Your task to perform on an android device: turn pop-ups on in chrome Image 0: 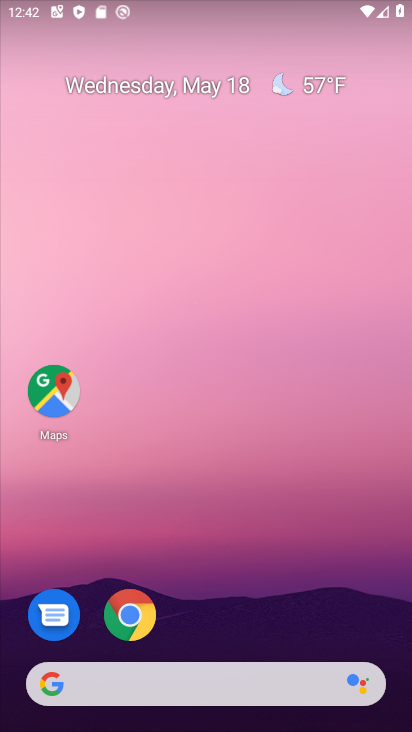
Step 0: drag from (282, 624) to (162, 6)
Your task to perform on an android device: turn pop-ups on in chrome Image 1: 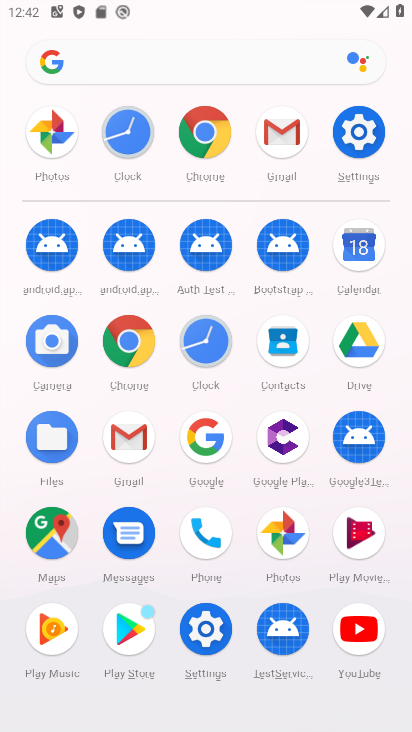
Step 1: click (200, 120)
Your task to perform on an android device: turn pop-ups on in chrome Image 2: 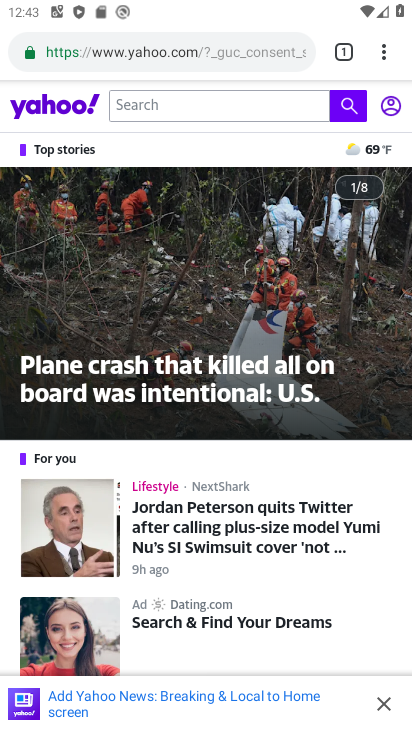
Step 2: press back button
Your task to perform on an android device: turn pop-ups on in chrome Image 3: 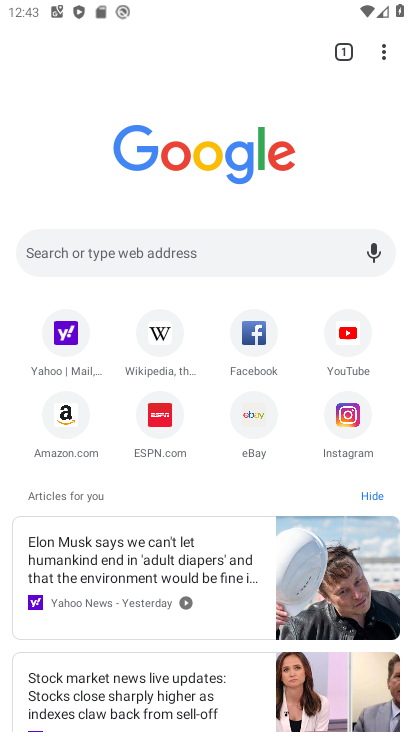
Step 3: click (389, 47)
Your task to perform on an android device: turn pop-ups on in chrome Image 4: 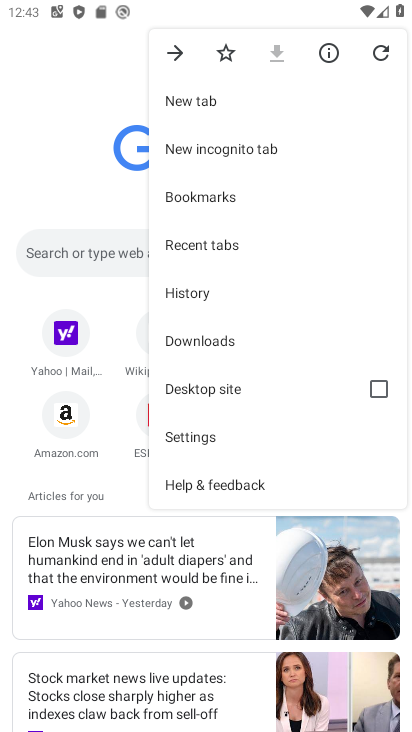
Step 4: click (253, 428)
Your task to perform on an android device: turn pop-ups on in chrome Image 5: 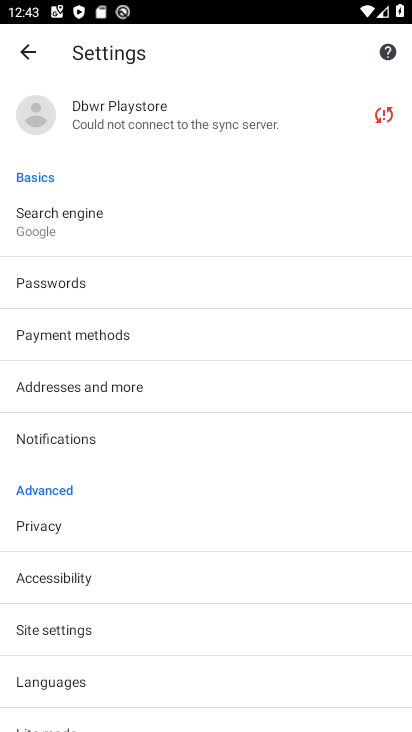
Step 5: click (105, 648)
Your task to perform on an android device: turn pop-ups on in chrome Image 6: 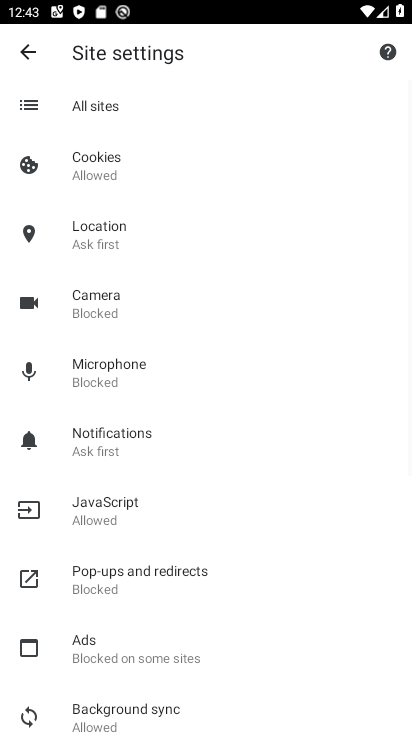
Step 6: click (146, 567)
Your task to perform on an android device: turn pop-ups on in chrome Image 7: 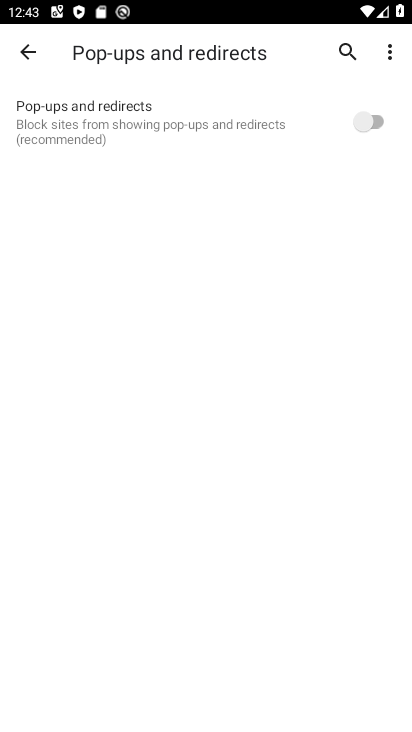
Step 7: click (354, 126)
Your task to perform on an android device: turn pop-ups on in chrome Image 8: 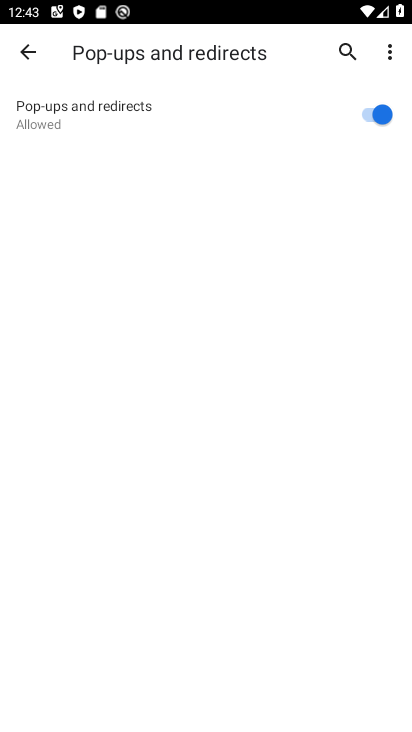
Step 8: task complete